Your task to perform on an android device: What's the weather? Image 0: 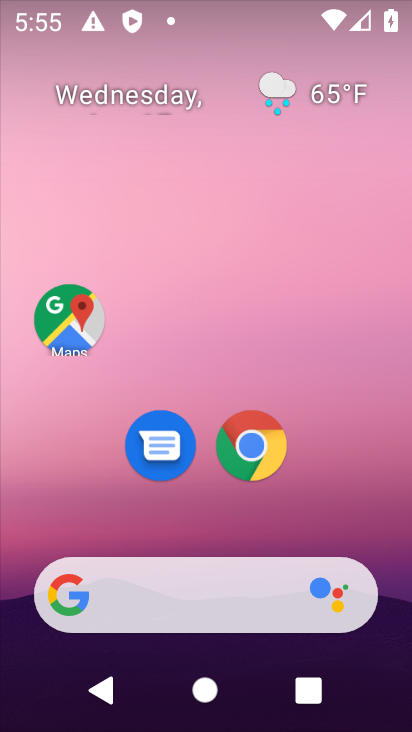
Step 0: drag from (197, 467) to (197, 185)
Your task to perform on an android device: What's the weather? Image 1: 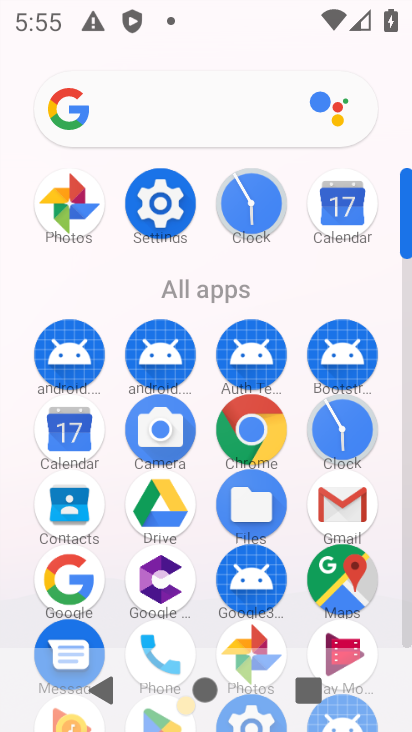
Step 1: click (54, 568)
Your task to perform on an android device: What's the weather? Image 2: 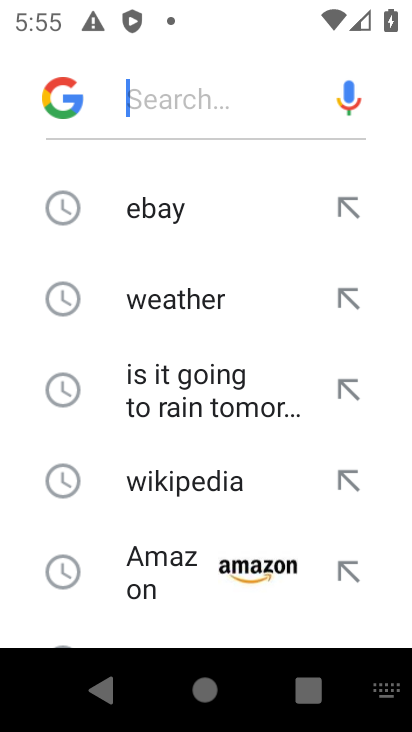
Step 2: click (177, 288)
Your task to perform on an android device: What's the weather? Image 3: 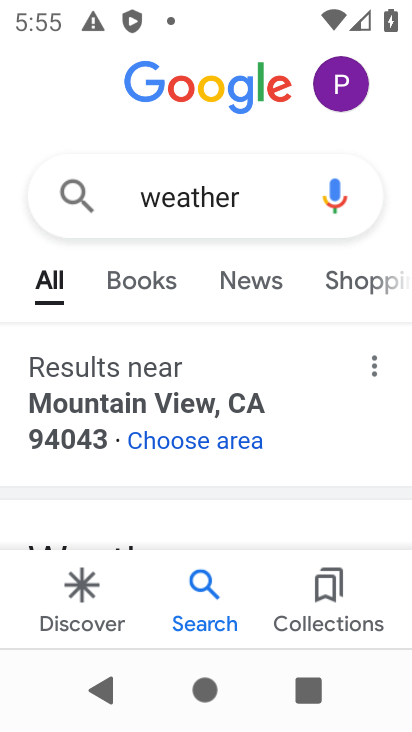
Step 3: task complete